Your task to perform on an android device: Open Youtube and go to "Your channel" Image 0: 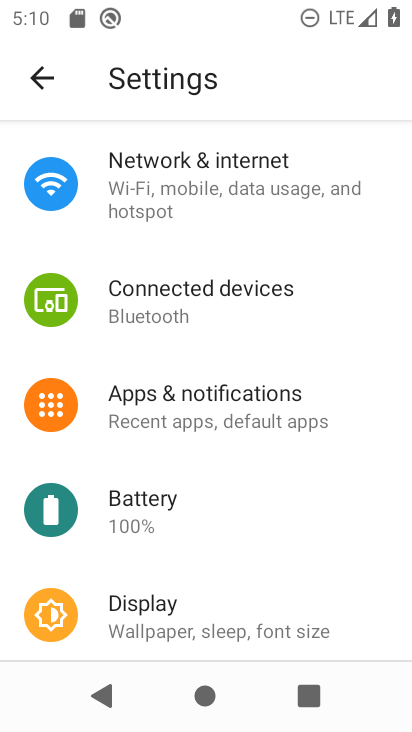
Step 0: press home button
Your task to perform on an android device: Open Youtube and go to "Your channel" Image 1: 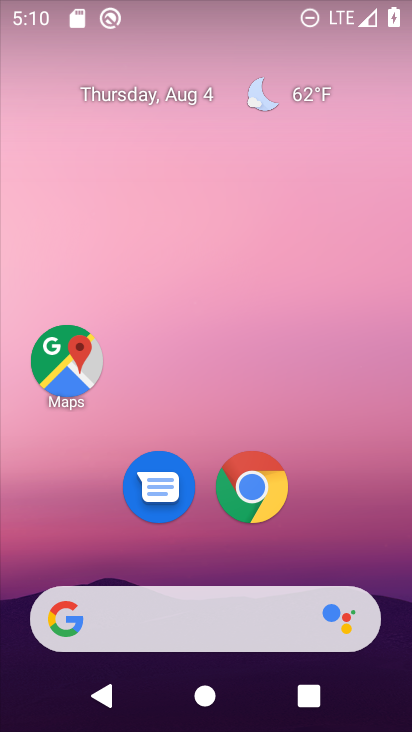
Step 1: drag from (204, 547) to (300, 8)
Your task to perform on an android device: Open Youtube and go to "Your channel" Image 2: 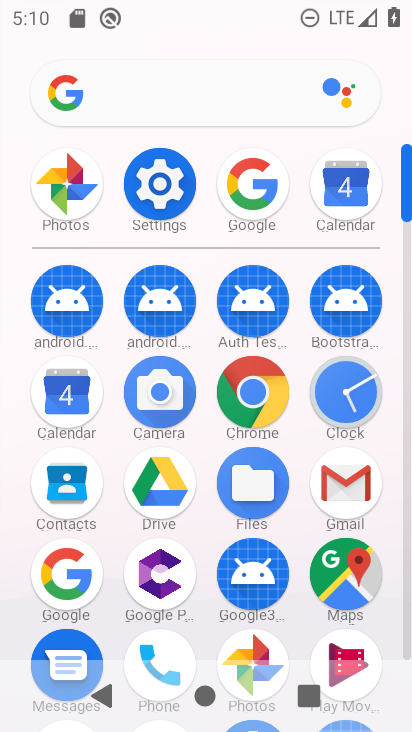
Step 2: drag from (179, 577) to (261, 46)
Your task to perform on an android device: Open Youtube and go to "Your channel" Image 3: 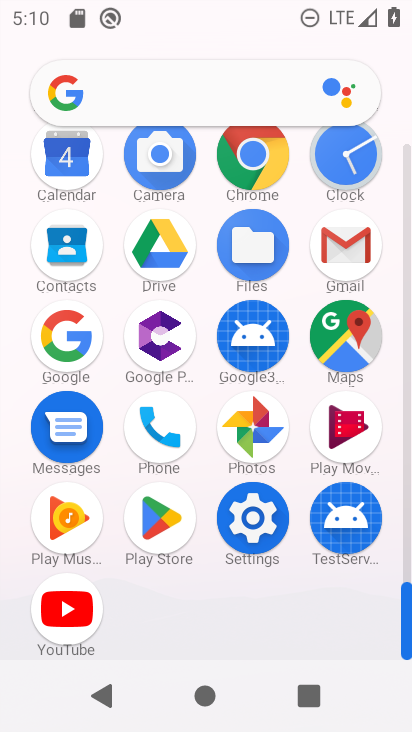
Step 3: click (62, 617)
Your task to perform on an android device: Open Youtube and go to "Your channel" Image 4: 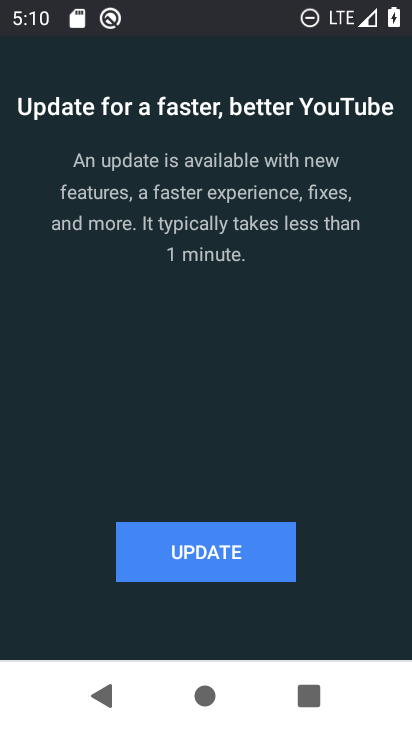
Step 4: task complete